Your task to perform on an android device: snooze an email in the gmail app Image 0: 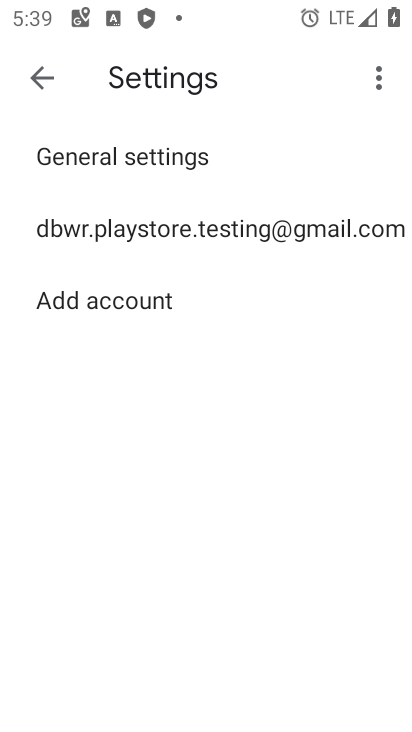
Step 0: press home button
Your task to perform on an android device: snooze an email in the gmail app Image 1: 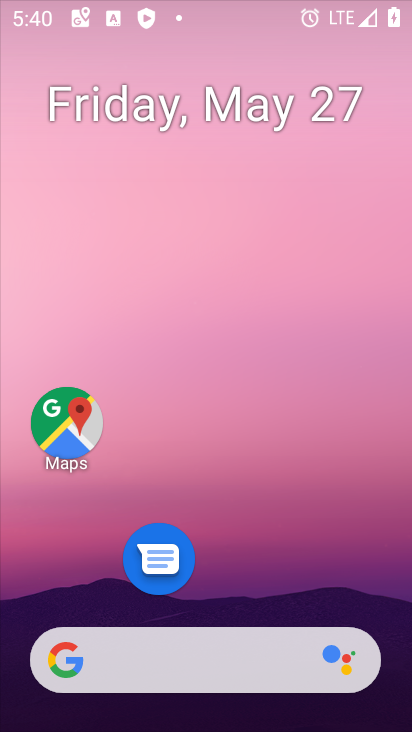
Step 1: drag from (286, 705) to (329, 23)
Your task to perform on an android device: snooze an email in the gmail app Image 2: 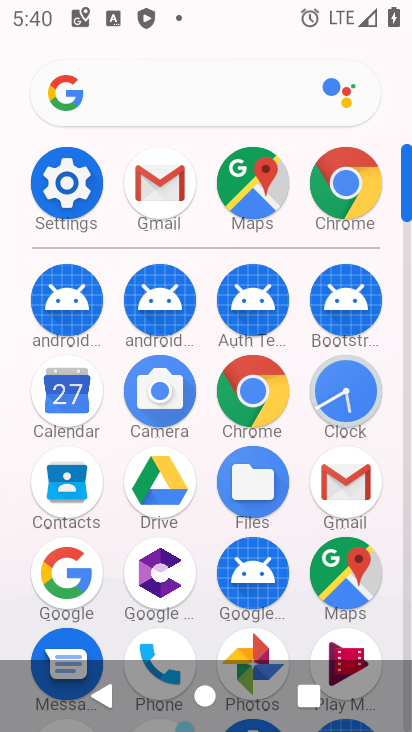
Step 2: click (355, 486)
Your task to perform on an android device: snooze an email in the gmail app Image 3: 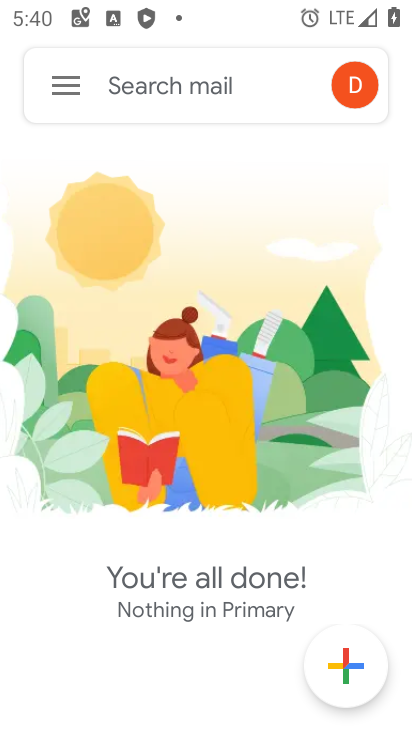
Step 3: click (54, 86)
Your task to perform on an android device: snooze an email in the gmail app Image 4: 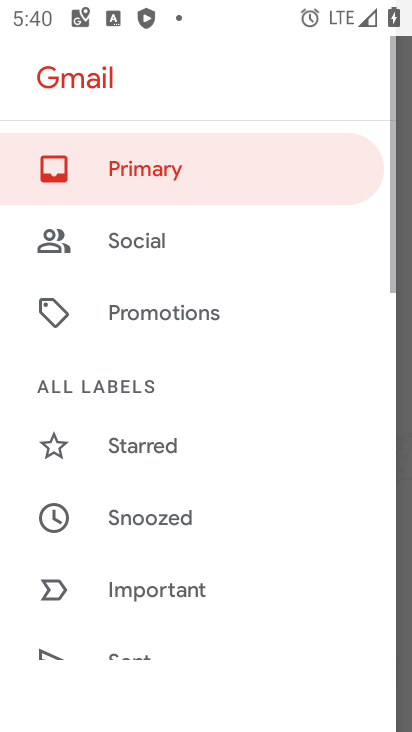
Step 4: click (180, 527)
Your task to perform on an android device: snooze an email in the gmail app Image 5: 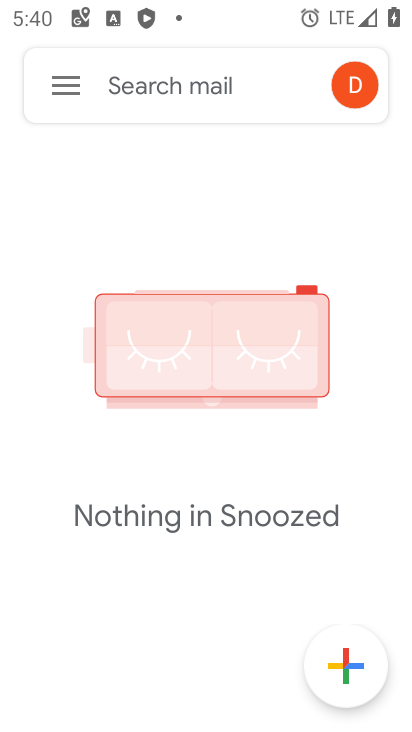
Step 5: press home button
Your task to perform on an android device: snooze an email in the gmail app Image 6: 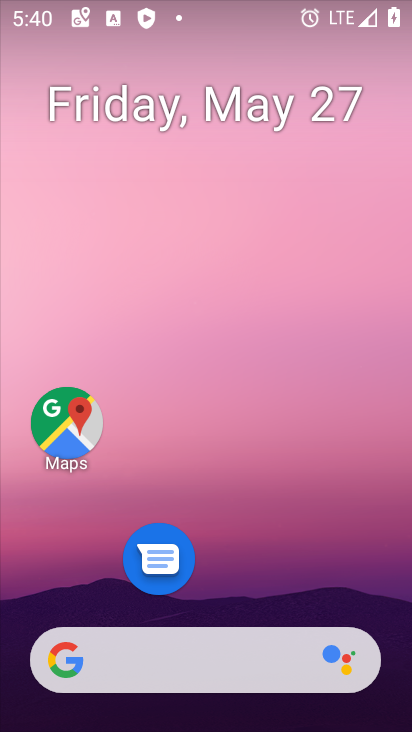
Step 6: drag from (242, 629) to (288, 32)
Your task to perform on an android device: snooze an email in the gmail app Image 7: 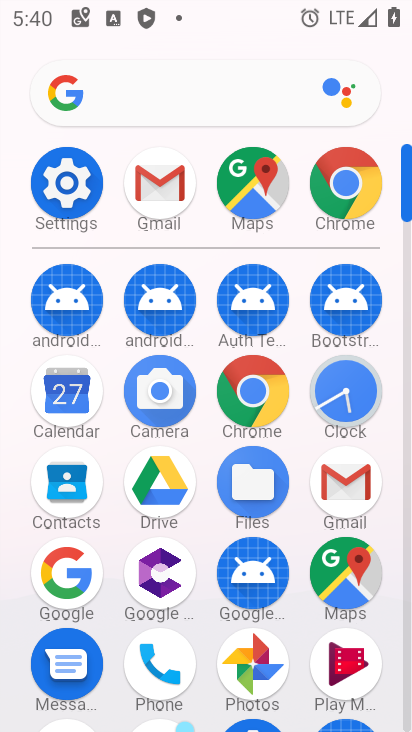
Step 7: click (332, 493)
Your task to perform on an android device: snooze an email in the gmail app Image 8: 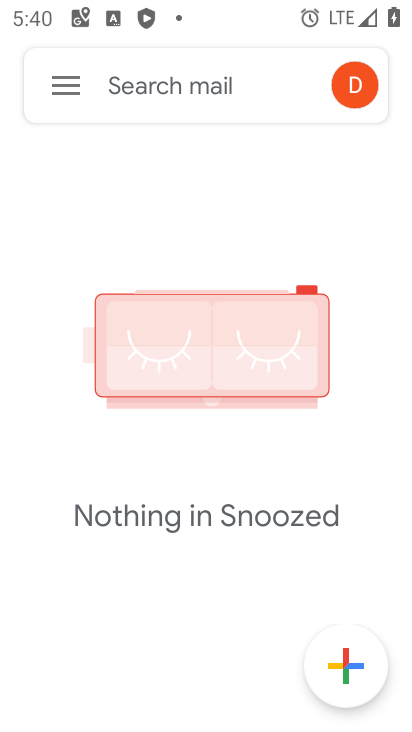
Step 8: click (74, 87)
Your task to perform on an android device: snooze an email in the gmail app Image 9: 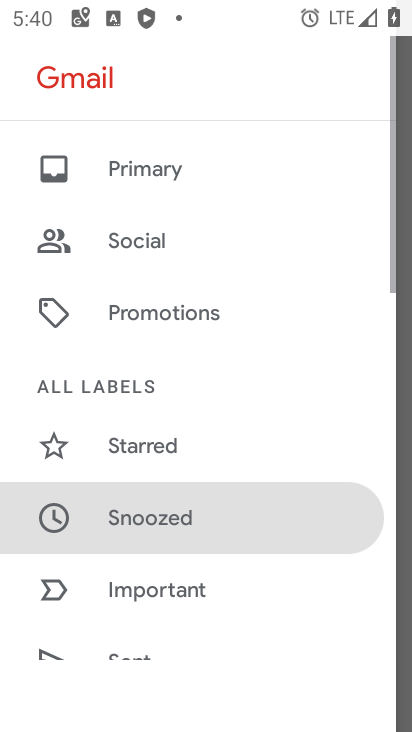
Step 9: click (168, 523)
Your task to perform on an android device: snooze an email in the gmail app Image 10: 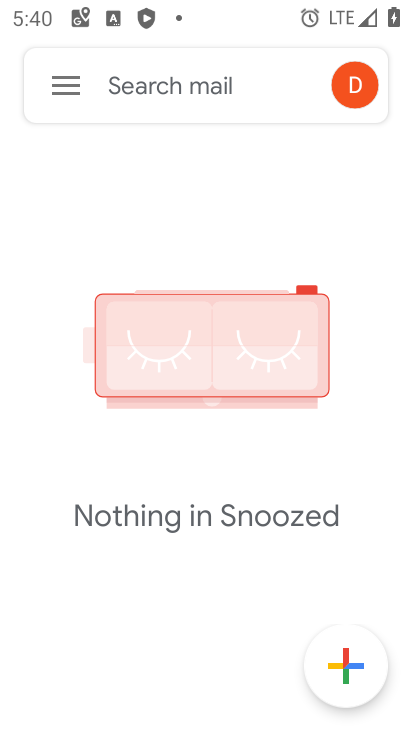
Step 10: task complete